Your task to perform on an android device: Open location settings Image 0: 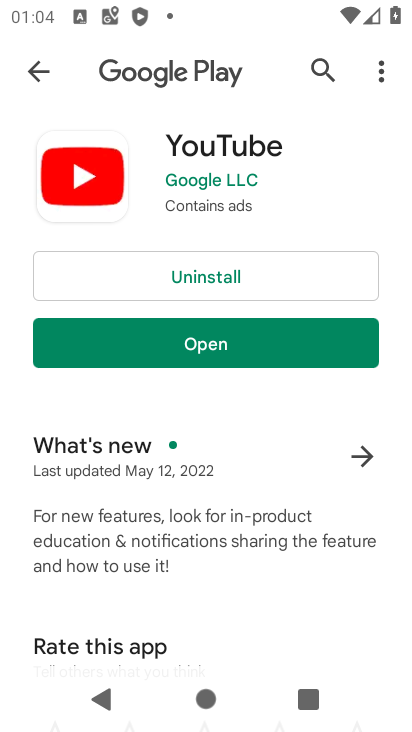
Step 0: press home button
Your task to perform on an android device: Open location settings Image 1: 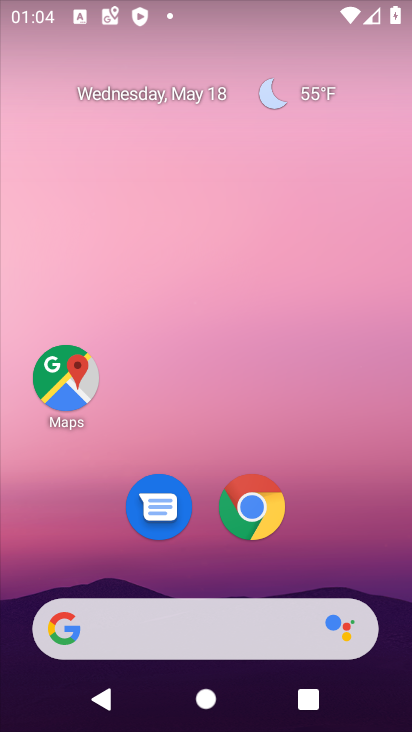
Step 1: drag from (393, 602) to (333, 234)
Your task to perform on an android device: Open location settings Image 2: 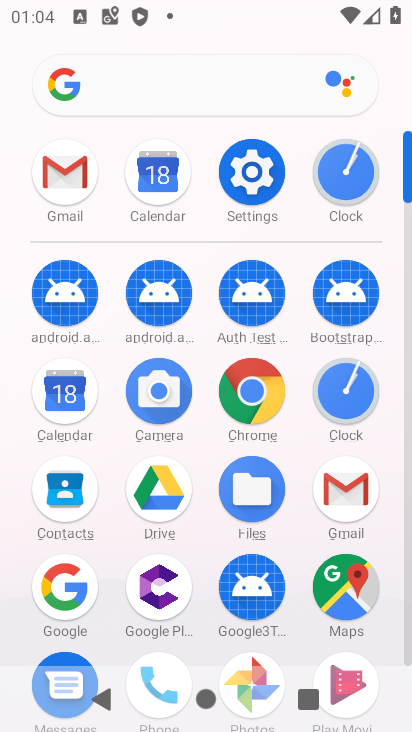
Step 2: click (405, 654)
Your task to perform on an android device: Open location settings Image 3: 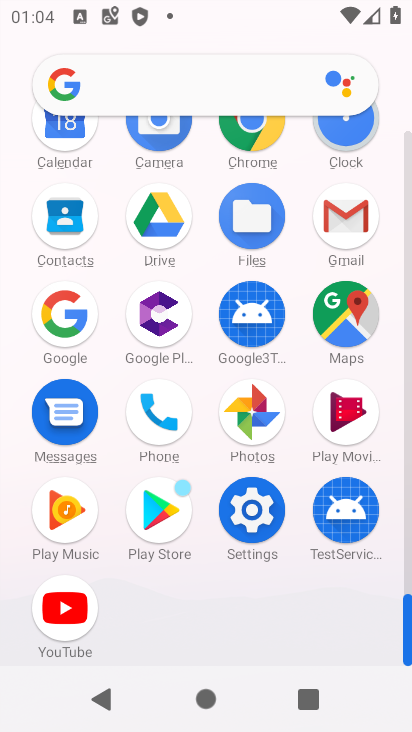
Step 3: click (246, 512)
Your task to perform on an android device: Open location settings Image 4: 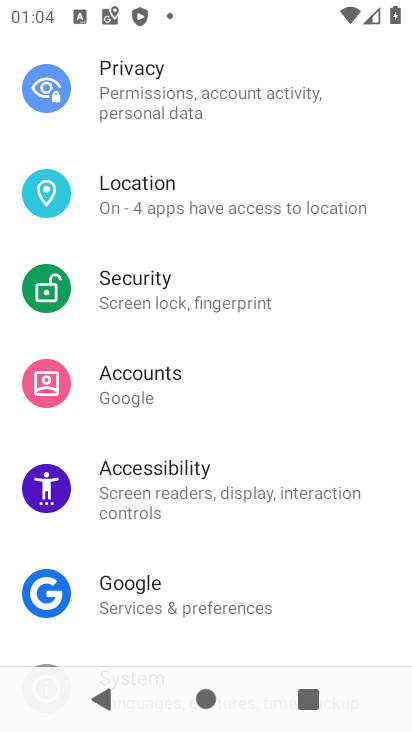
Step 4: click (145, 196)
Your task to perform on an android device: Open location settings Image 5: 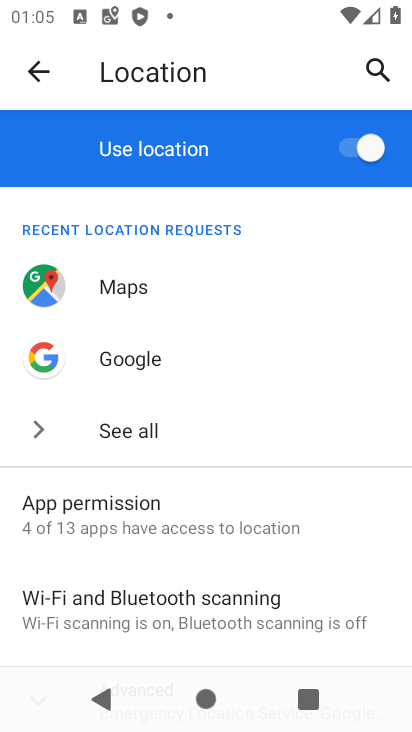
Step 5: task complete